Your task to perform on an android device: set the timer Image 0: 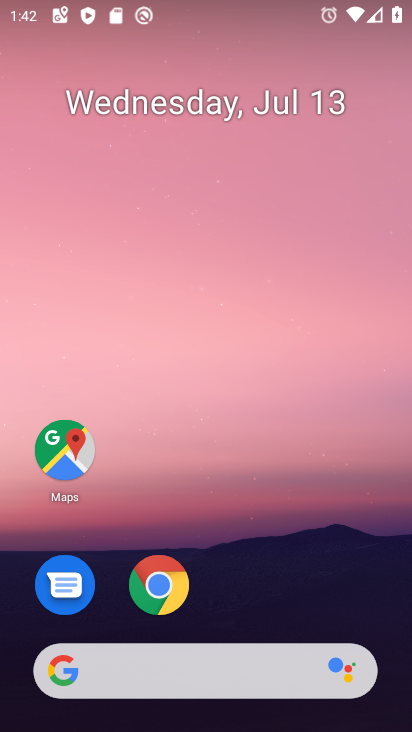
Step 0: drag from (222, 687) to (289, 240)
Your task to perform on an android device: set the timer Image 1: 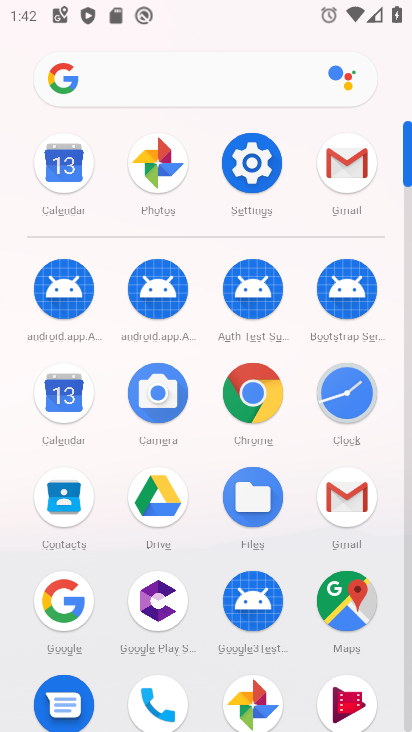
Step 1: click (349, 403)
Your task to perform on an android device: set the timer Image 2: 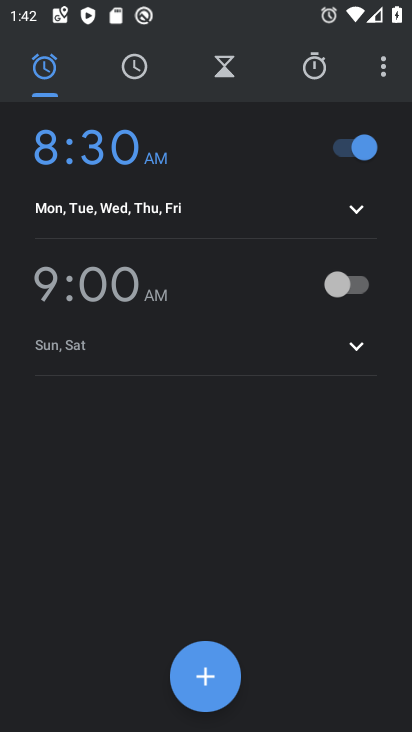
Step 2: click (232, 74)
Your task to perform on an android device: set the timer Image 3: 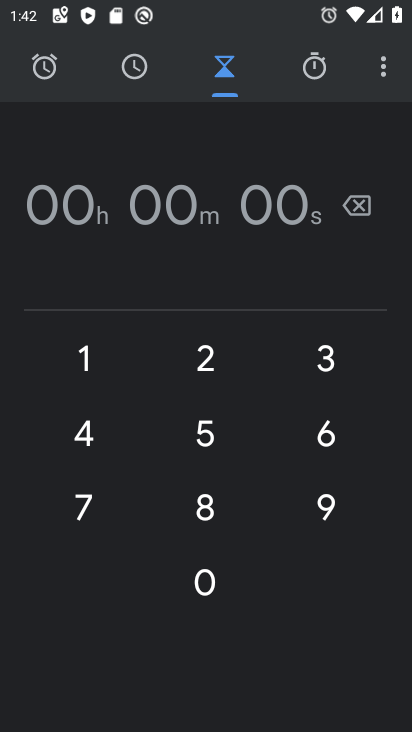
Step 3: click (85, 348)
Your task to perform on an android device: set the timer Image 4: 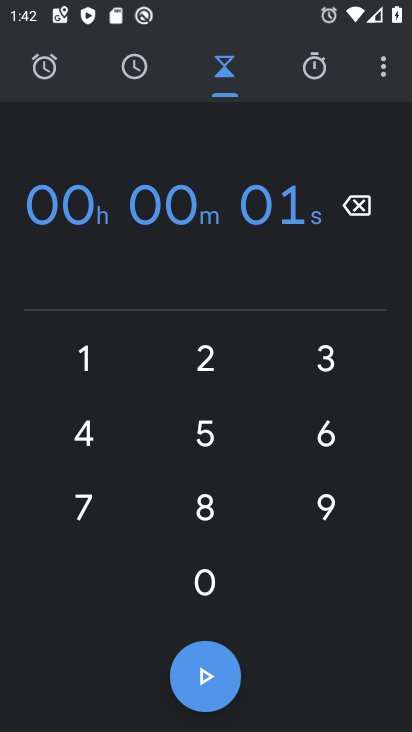
Step 4: click (202, 362)
Your task to perform on an android device: set the timer Image 5: 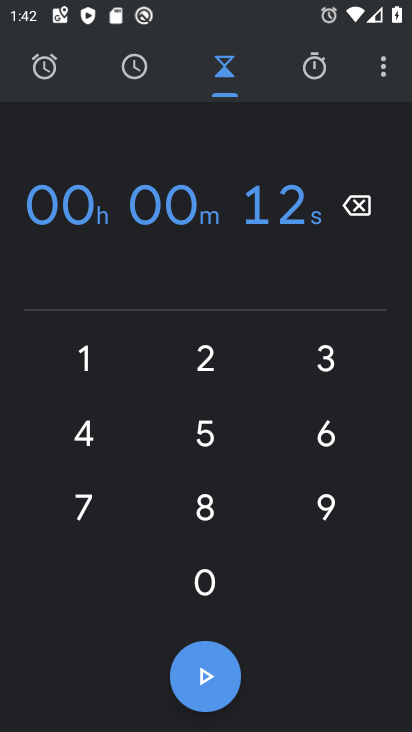
Step 5: click (204, 671)
Your task to perform on an android device: set the timer Image 6: 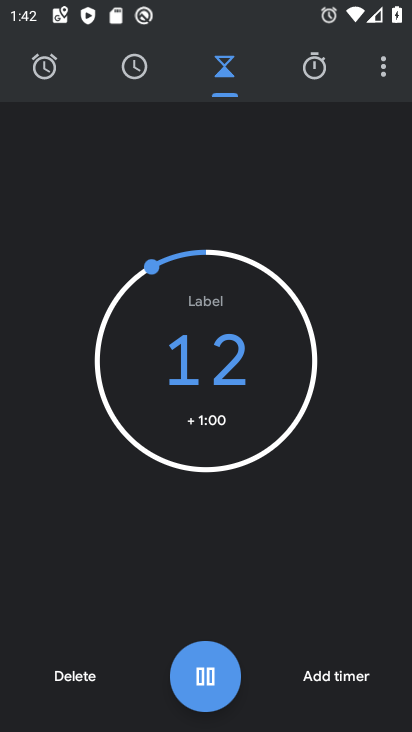
Step 6: click (203, 675)
Your task to perform on an android device: set the timer Image 7: 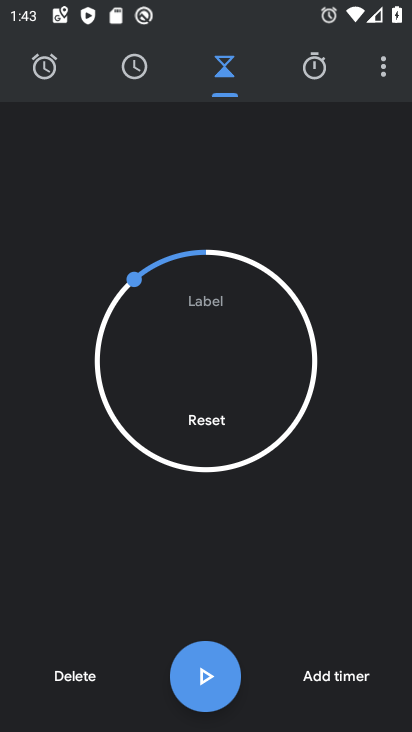
Step 7: task complete